Your task to perform on an android device: choose inbox layout in the gmail app Image 0: 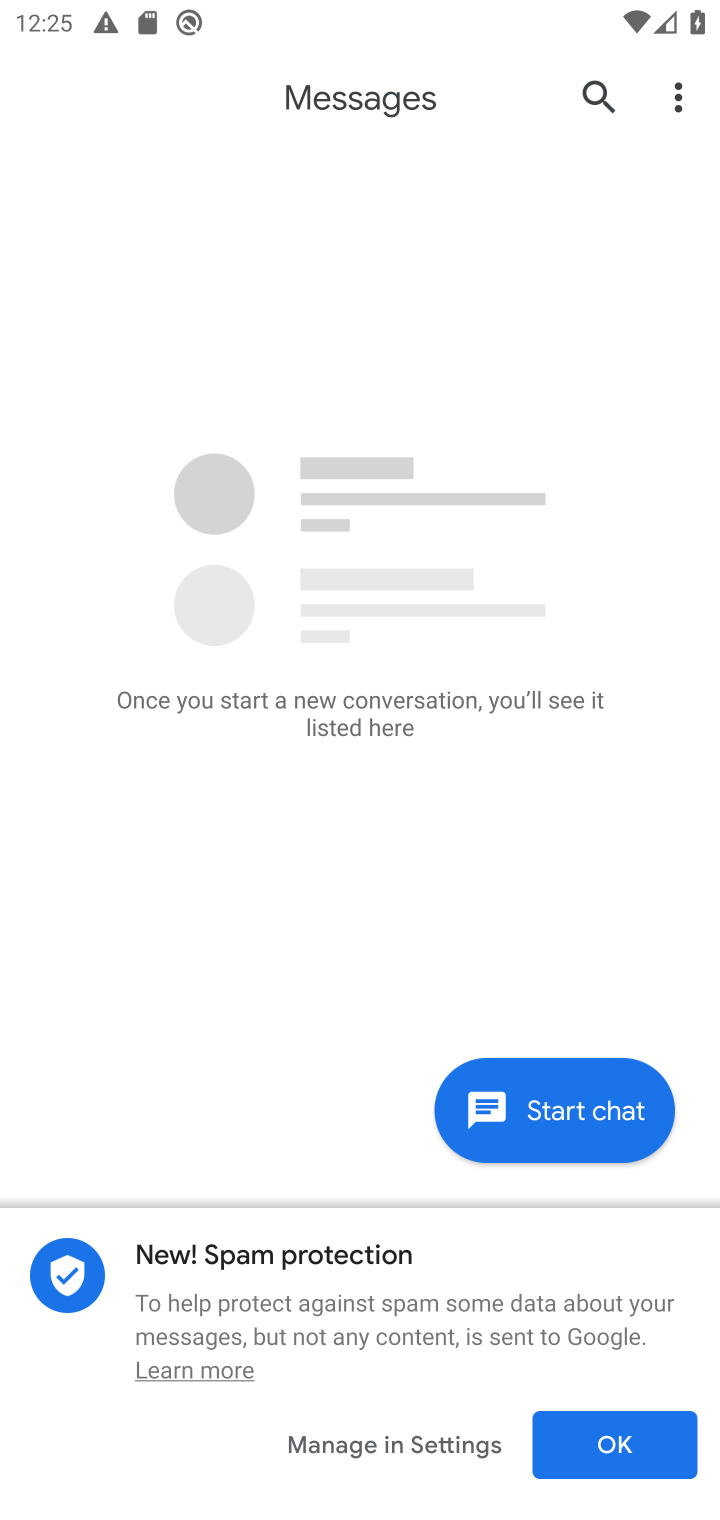
Step 0: press home button
Your task to perform on an android device: choose inbox layout in the gmail app Image 1: 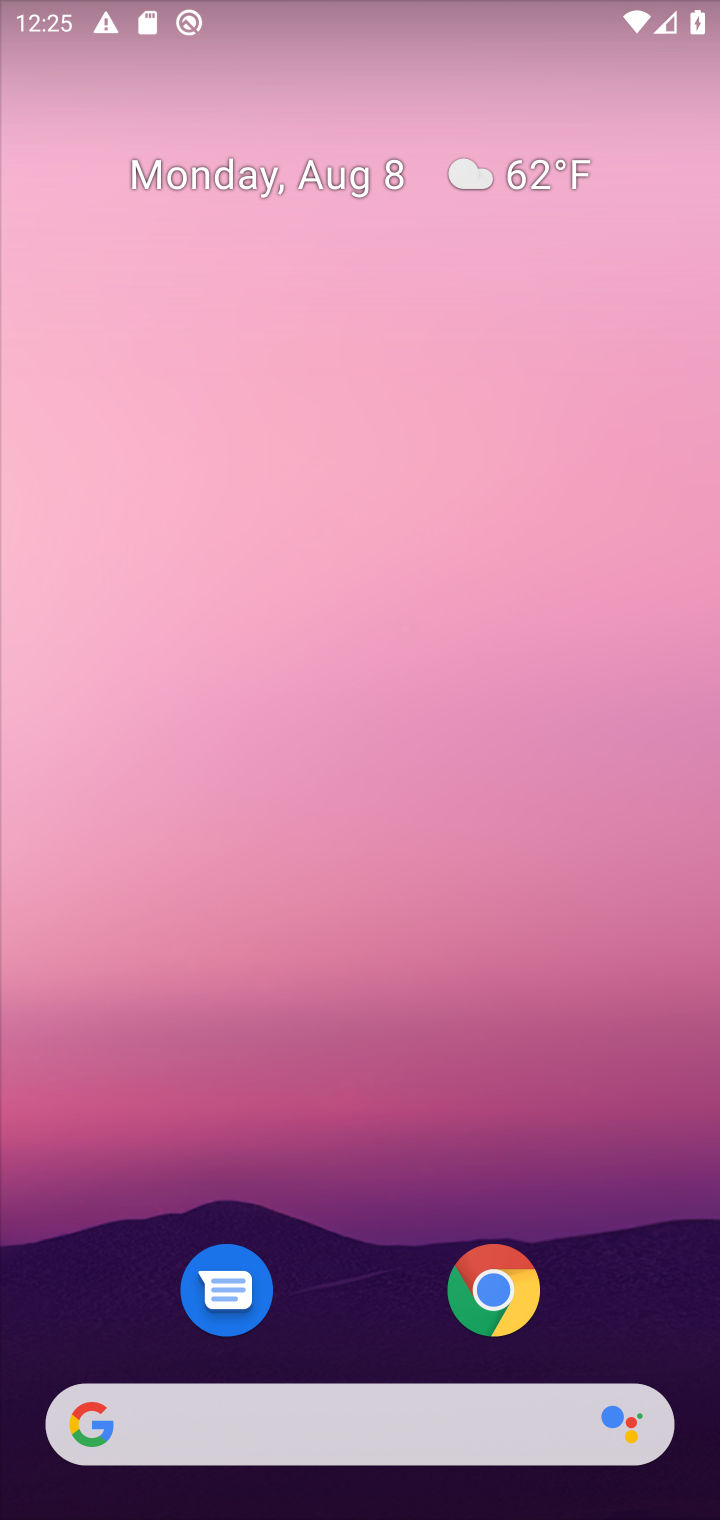
Step 1: drag from (325, 1327) to (424, 639)
Your task to perform on an android device: choose inbox layout in the gmail app Image 2: 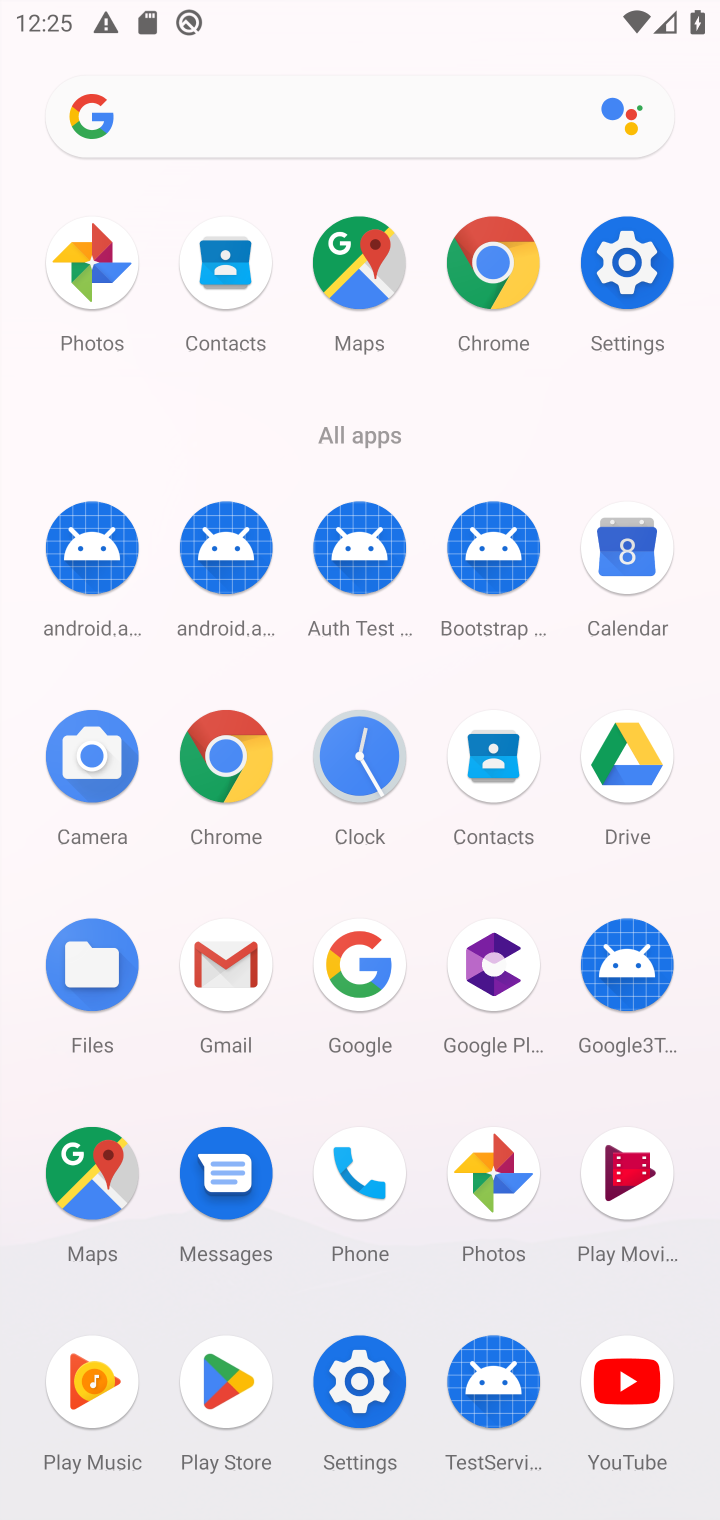
Step 2: click (235, 985)
Your task to perform on an android device: choose inbox layout in the gmail app Image 3: 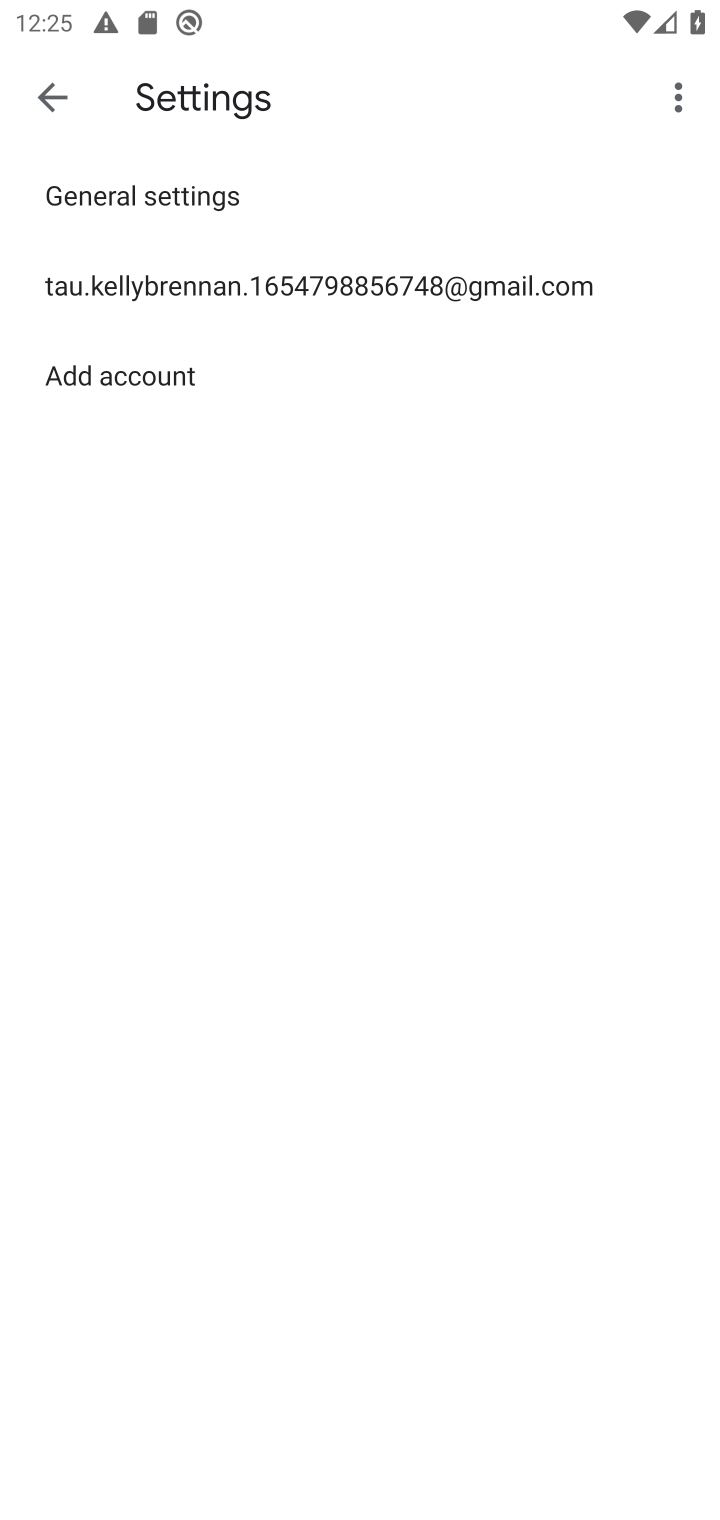
Step 3: click (147, 286)
Your task to perform on an android device: choose inbox layout in the gmail app Image 4: 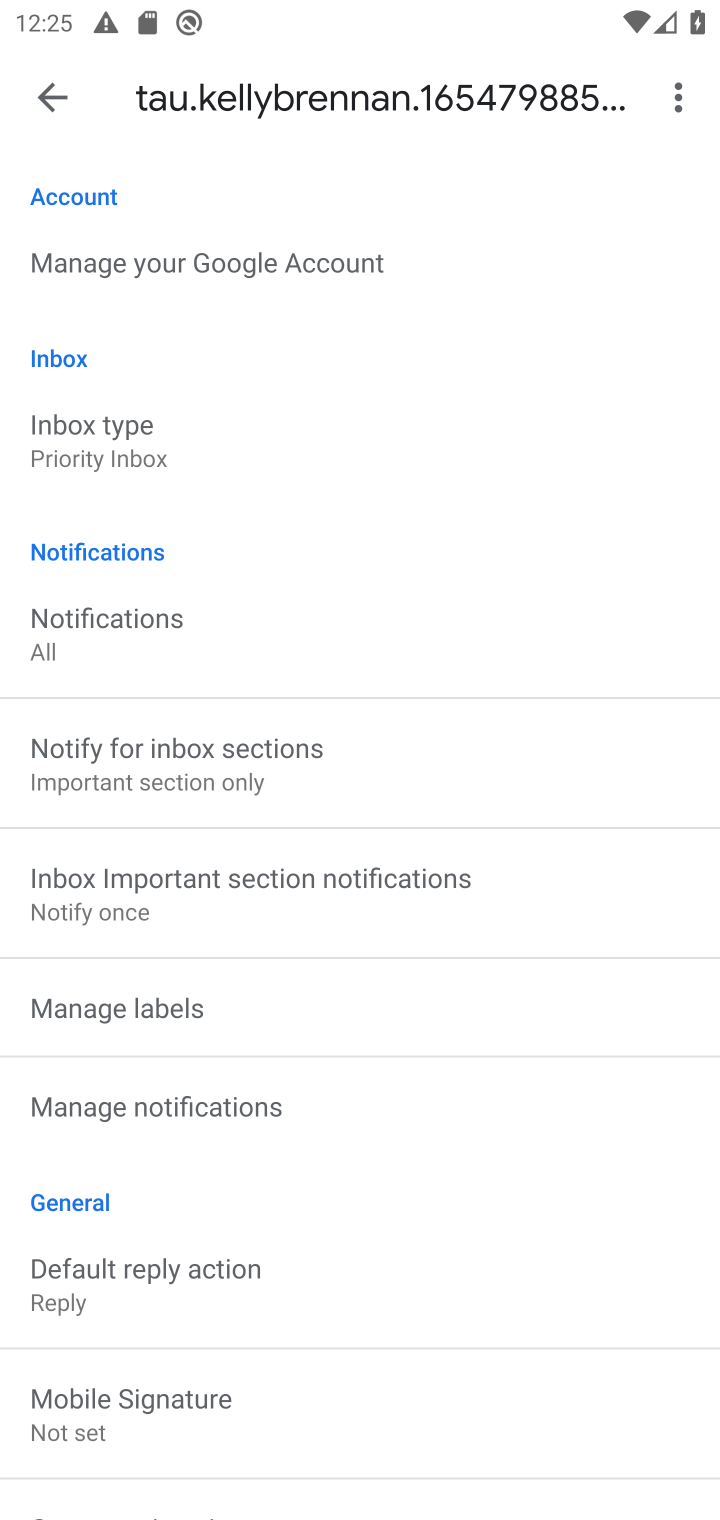
Step 4: click (150, 437)
Your task to perform on an android device: choose inbox layout in the gmail app Image 5: 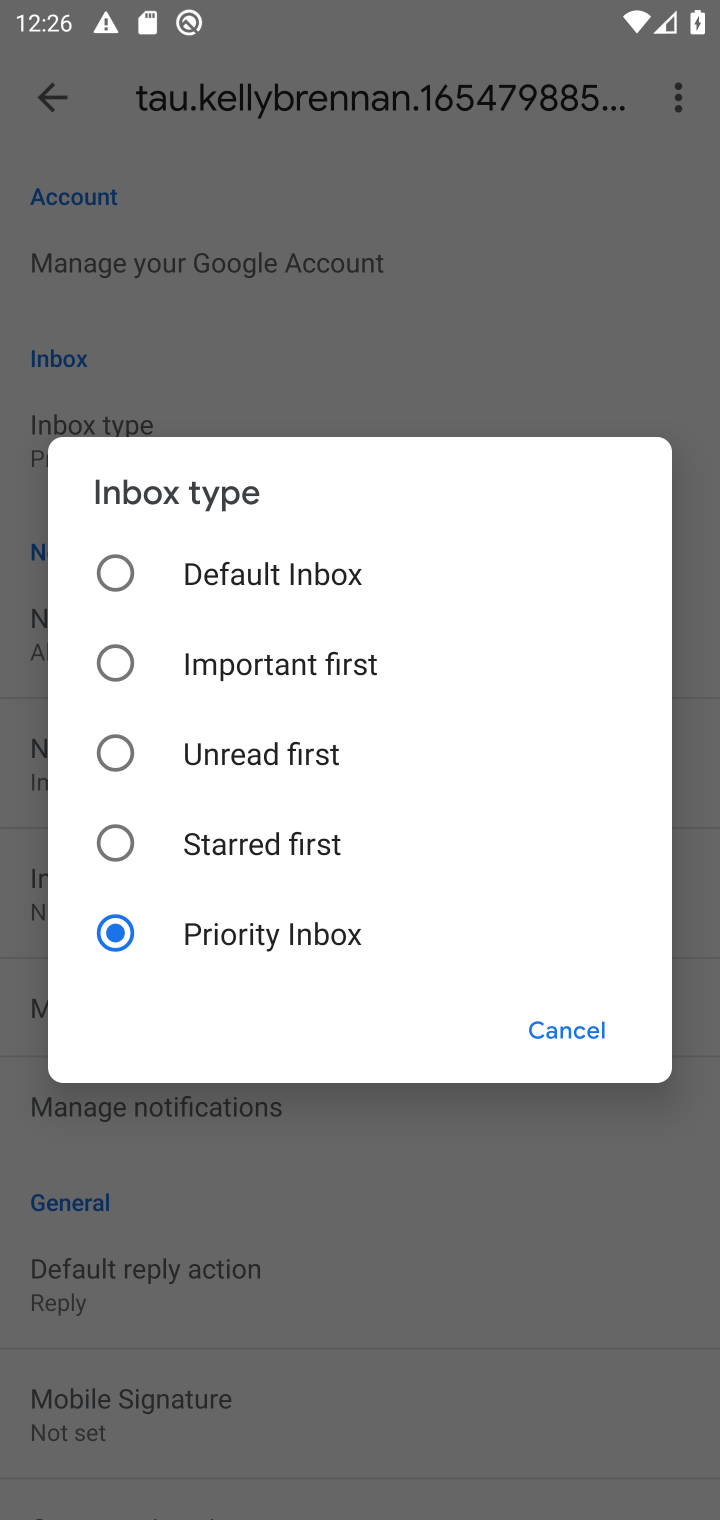
Step 5: click (237, 579)
Your task to perform on an android device: choose inbox layout in the gmail app Image 6: 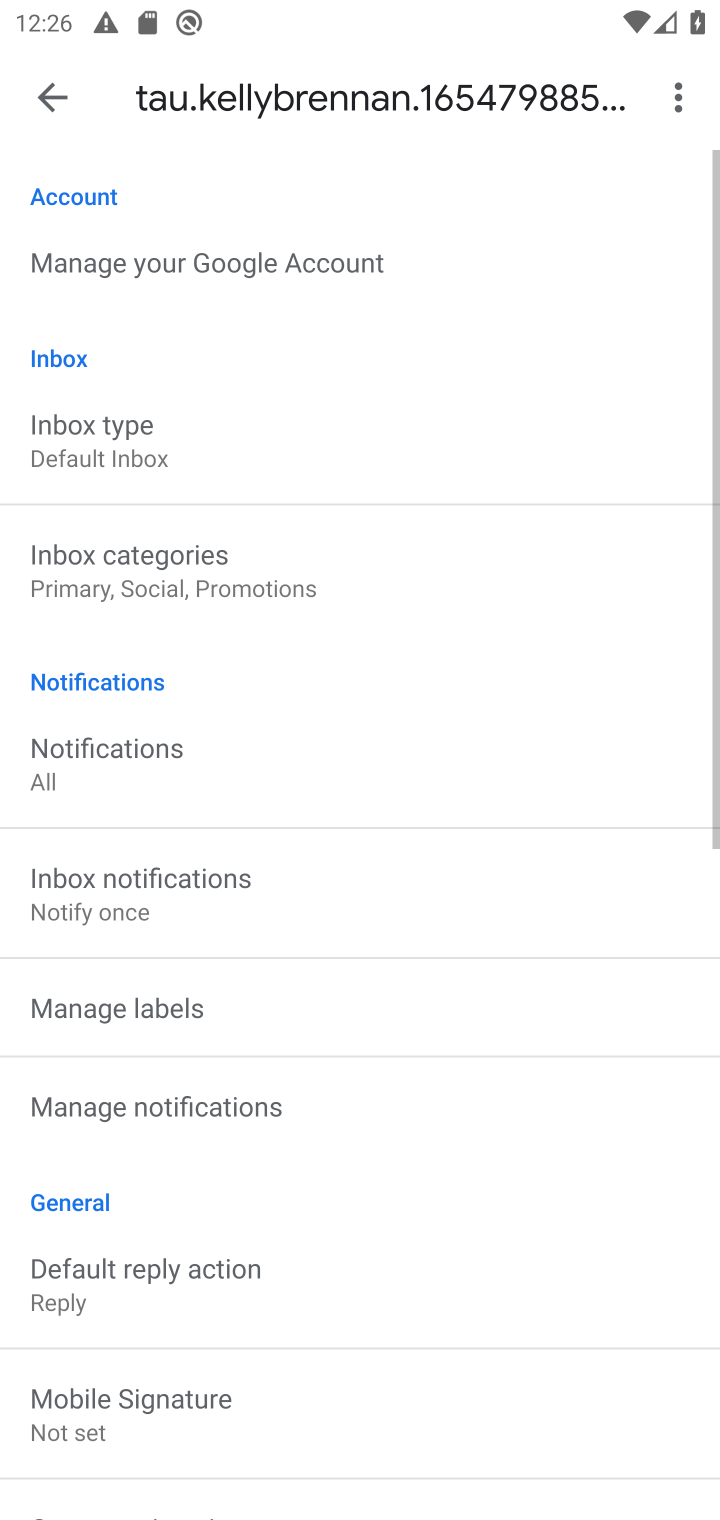
Step 6: task complete